Your task to perform on an android device: What's on the menu at Subway? Image 0: 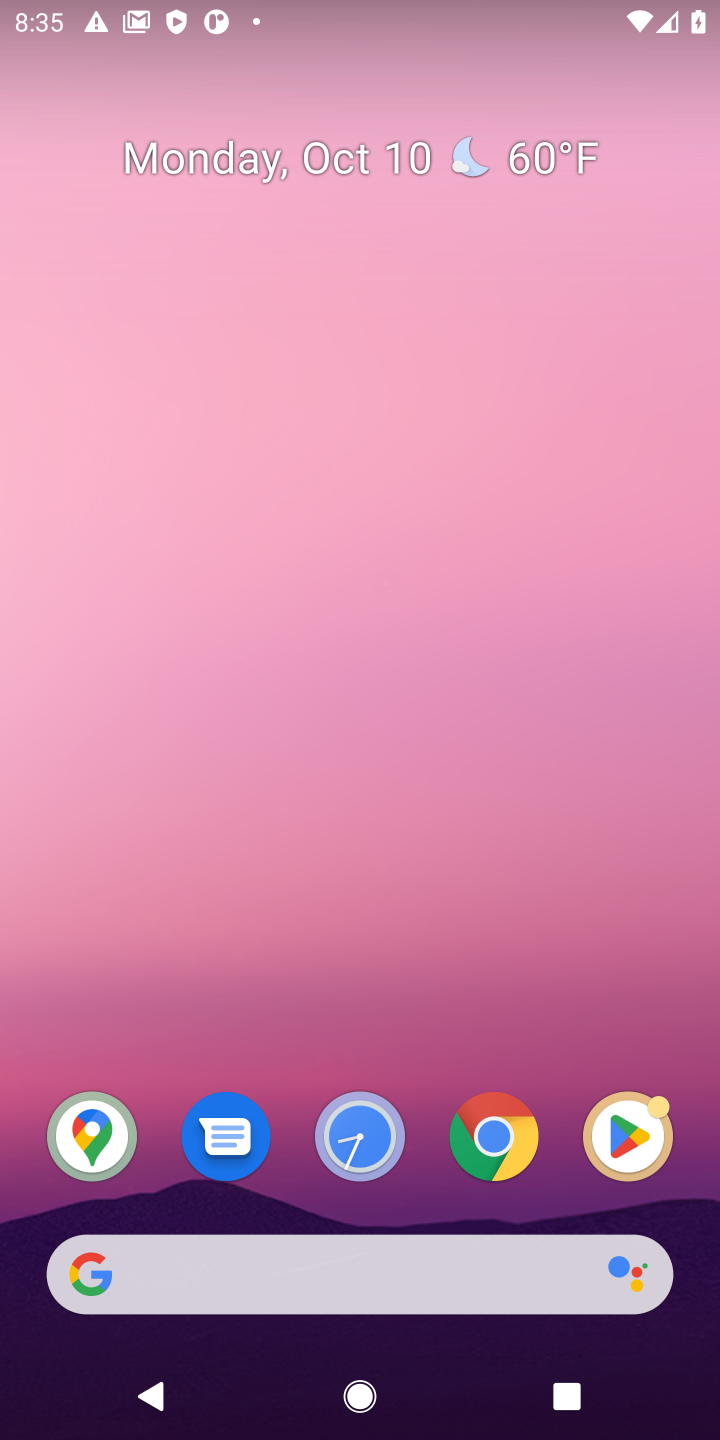
Step 0: click (232, 1286)
Your task to perform on an android device: What's on the menu at Subway? Image 1: 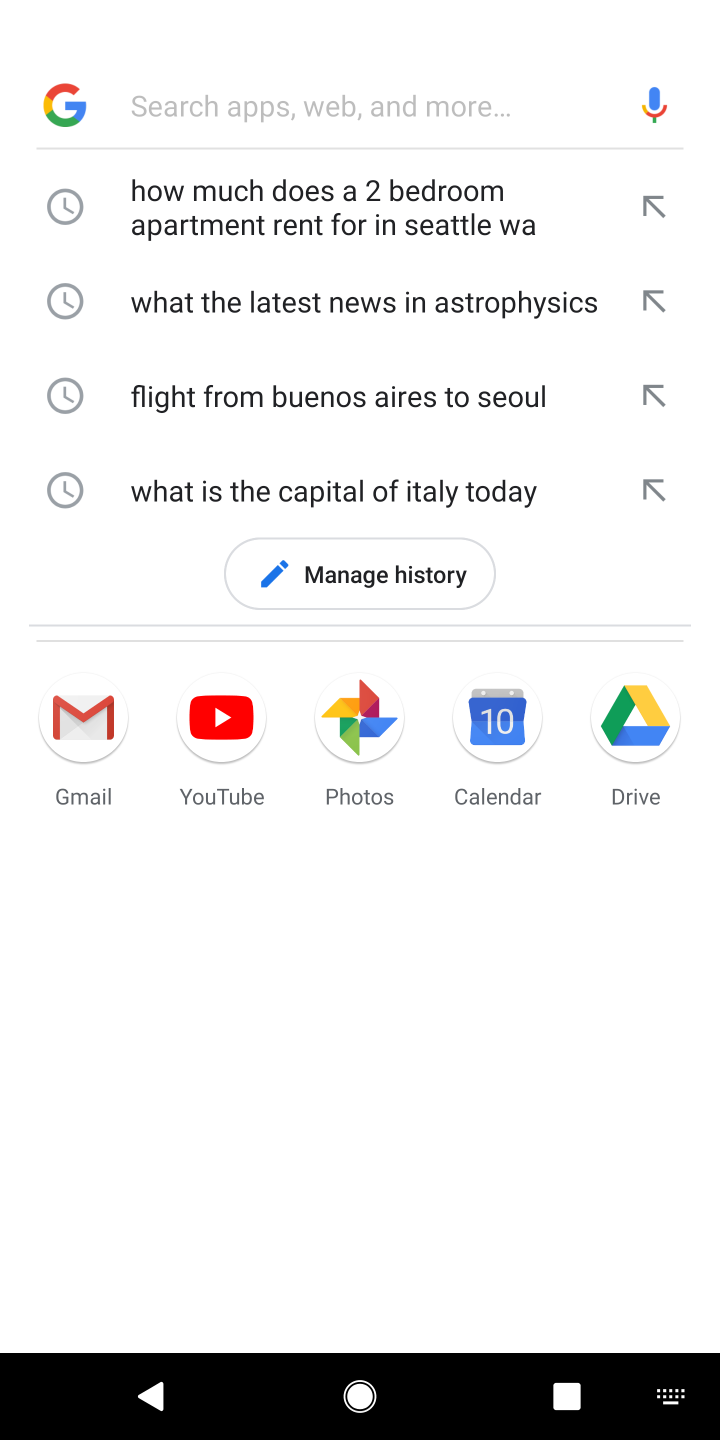
Step 1: type "What's on the menu at Subway?"
Your task to perform on an android device: What's on the menu at Subway? Image 2: 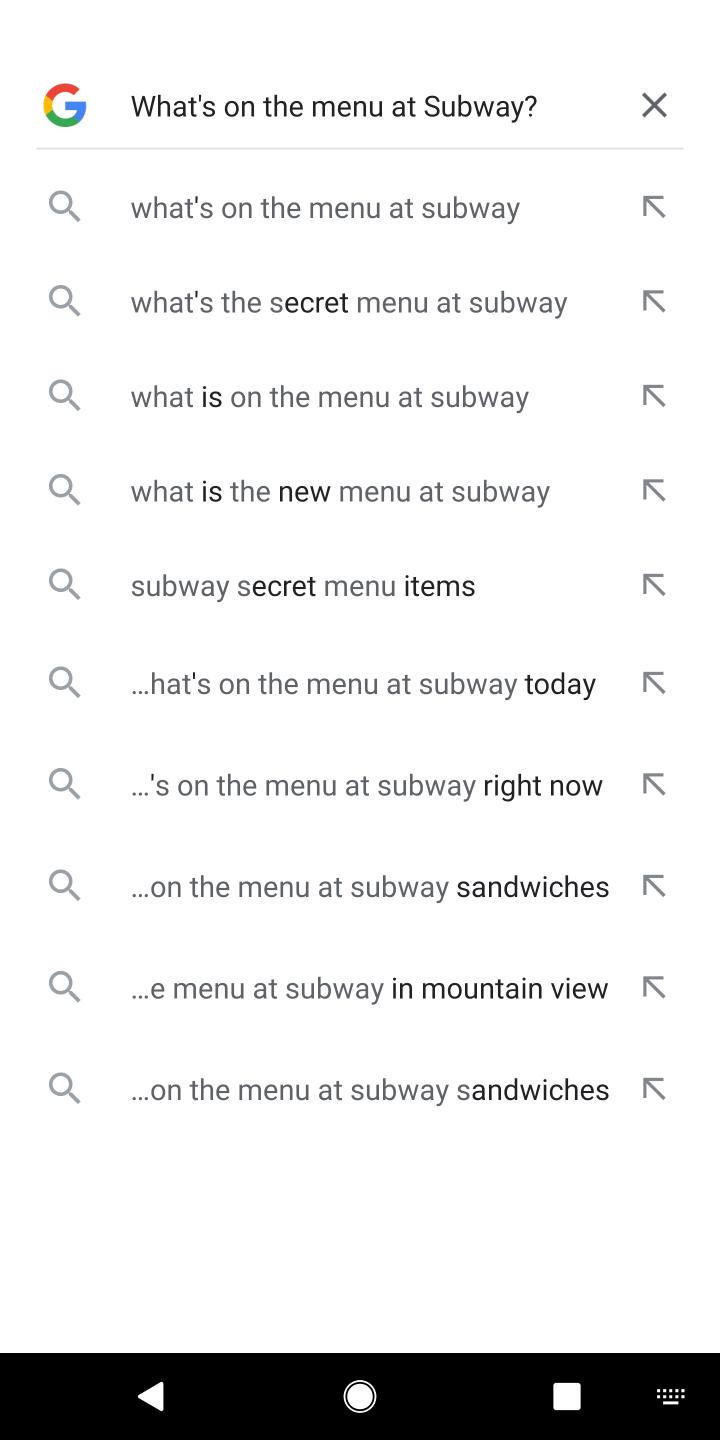
Step 2: click (368, 205)
Your task to perform on an android device: What's on the menu at Subway? Image 3: 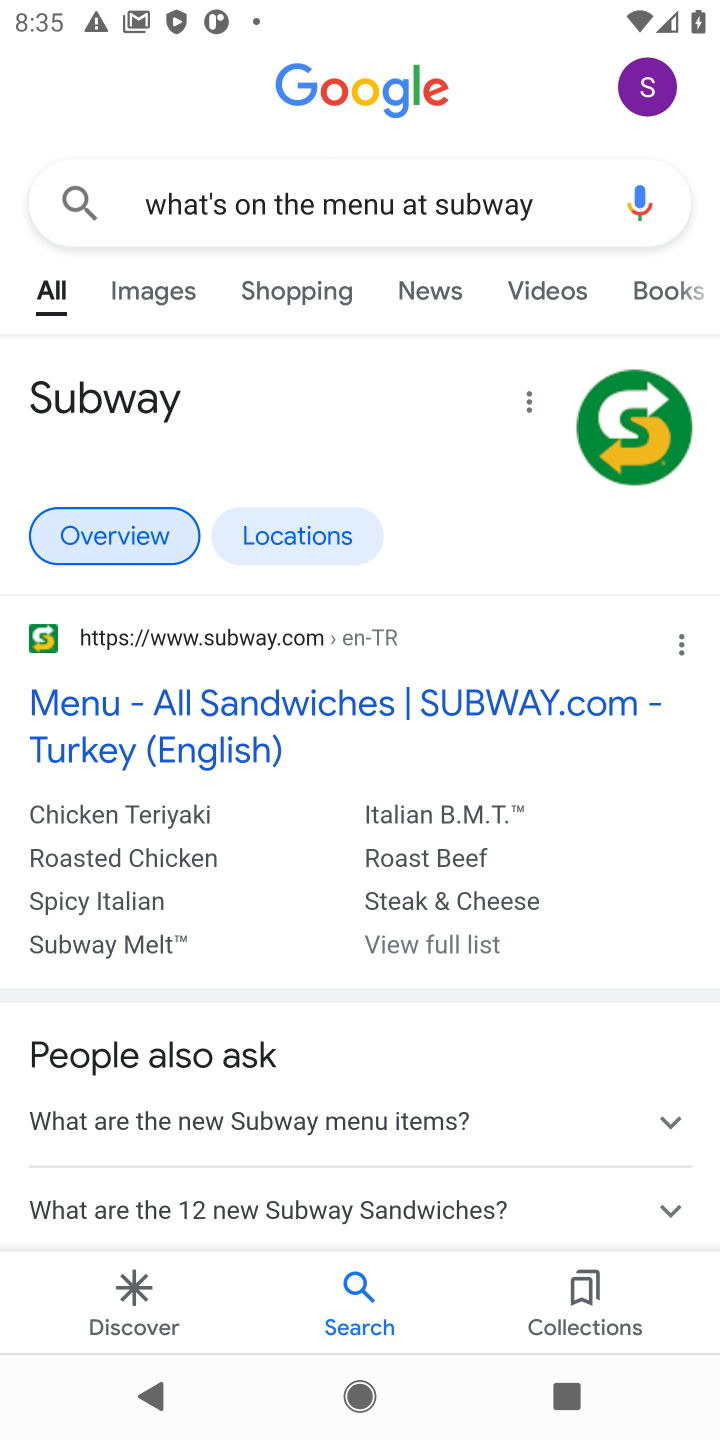
Step 3: drag from (604, 883) to (571, 753)
Your task to perform on an android device: What's on the menu at Subway? Image 4: 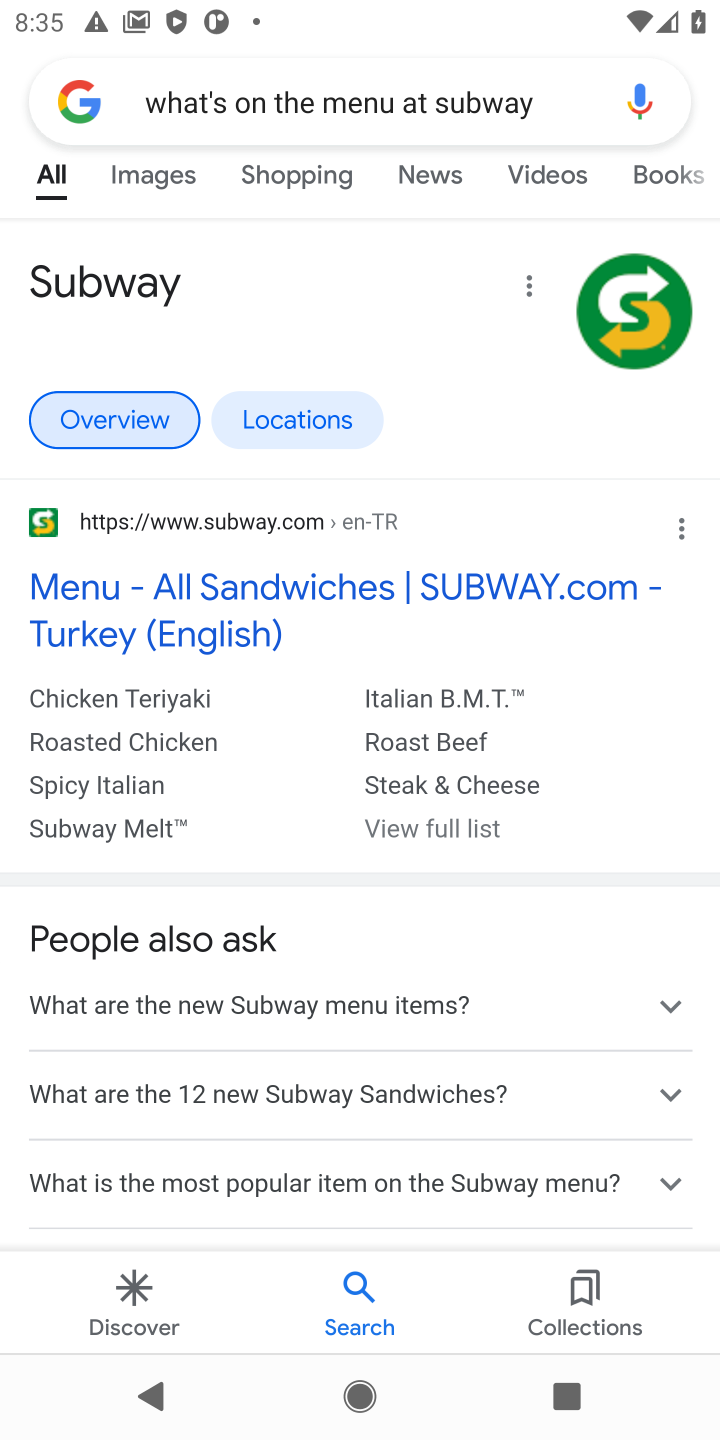
Step 4: click (232, 592)
Your task to perform on an android device: What's on the menu at Subway? Image 5: 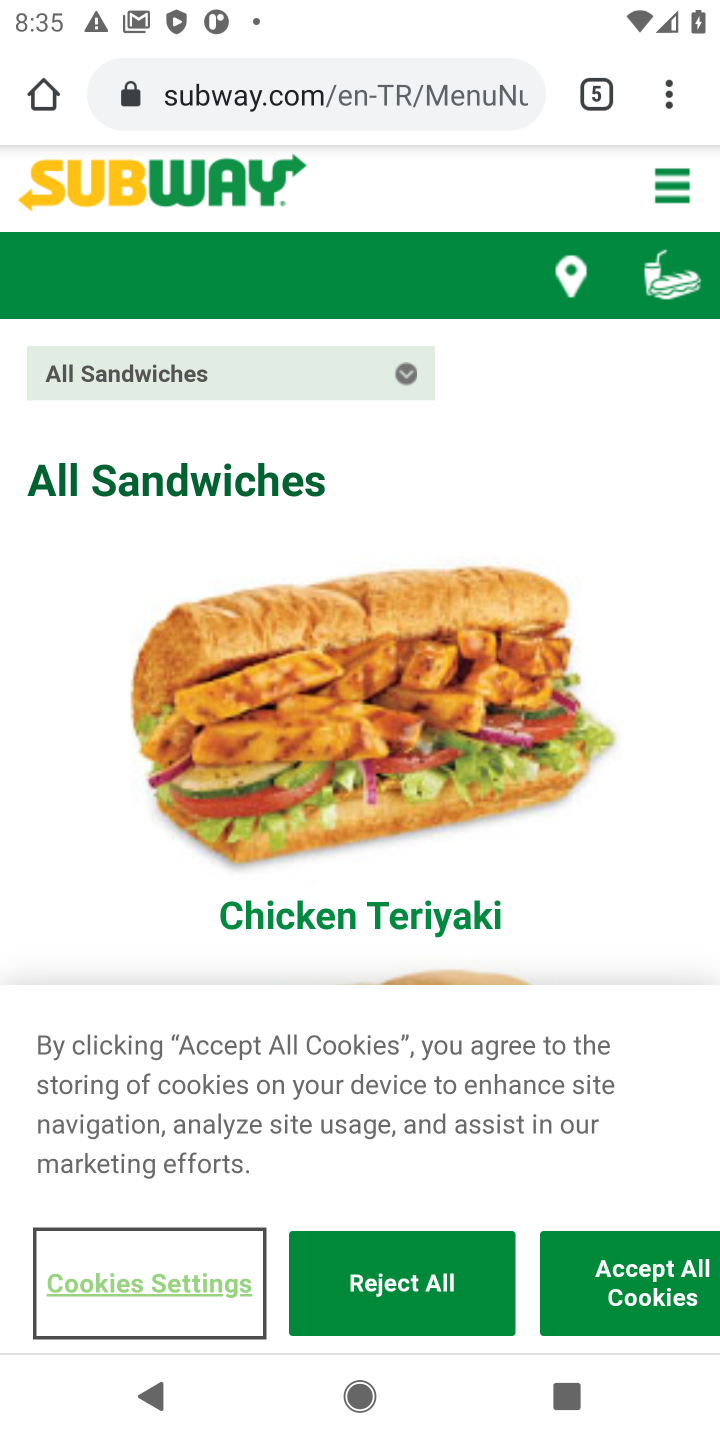
Step 5: drag from (634, 922) to (562, 626)
Your task to perform on an android device: What's on the menu at Subway? Image 6: 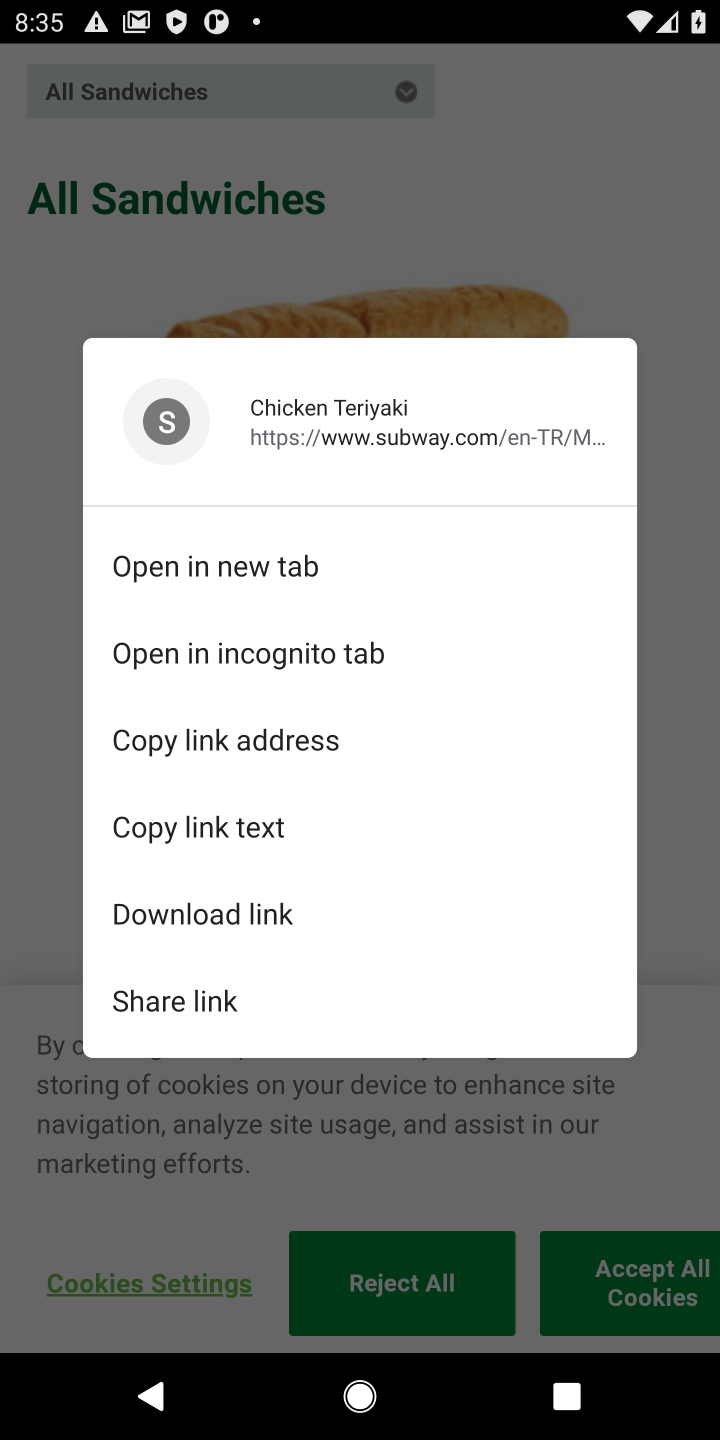
Step 6: click (650, 285)
Your task to perform on an android device: What's on the menu at Subway? Image 7: 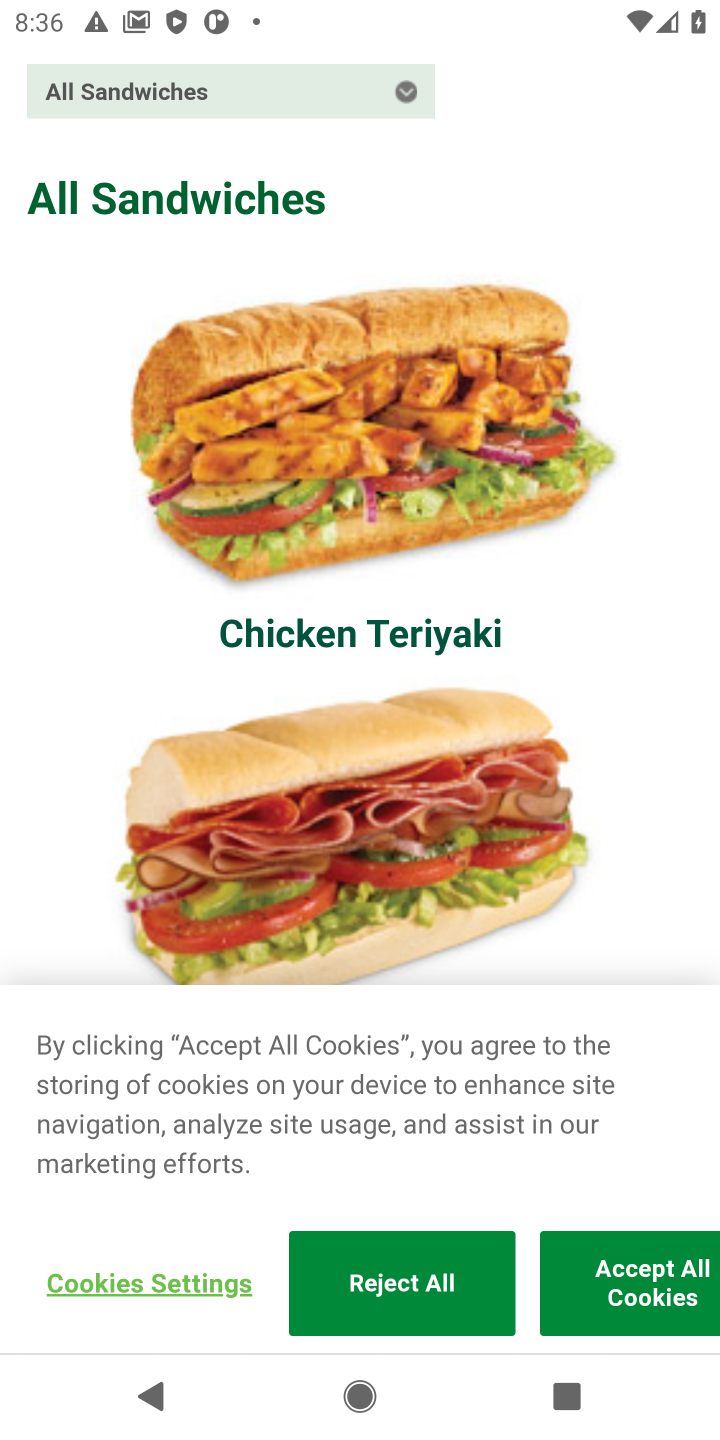
Step 7: task complete